Your task to perform on an android device: turn on sleep mode Image 0: 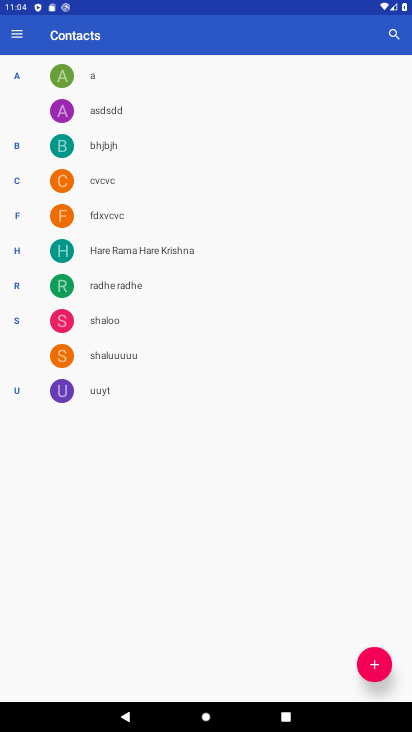
Step 0: press home button
Your task to perform on an android device: turn on sleep mode Image 1: 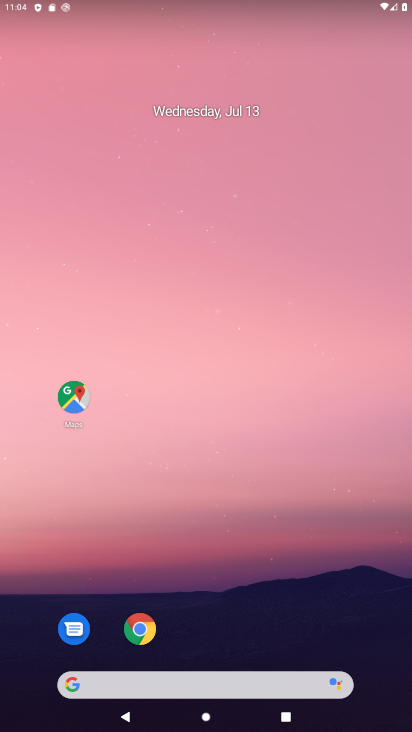
Step 1: drag from (225, 649) to (321, 123)
Your task to perform on an android device: turn on sleep mode Image 2: 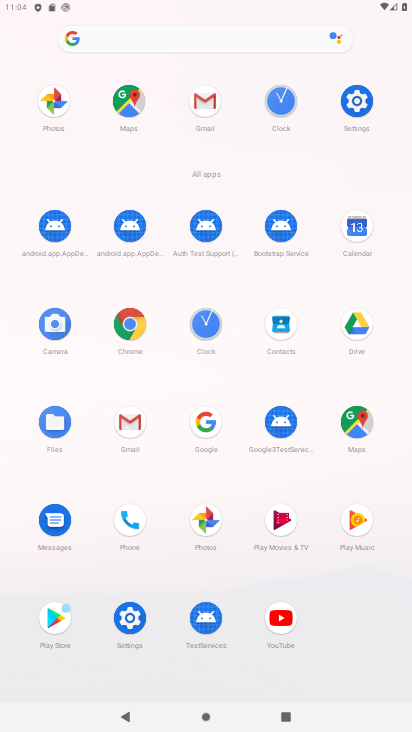
Step 2: click (122, 623)
Your task to perform on an android device: turn on sleep mode Image 3: 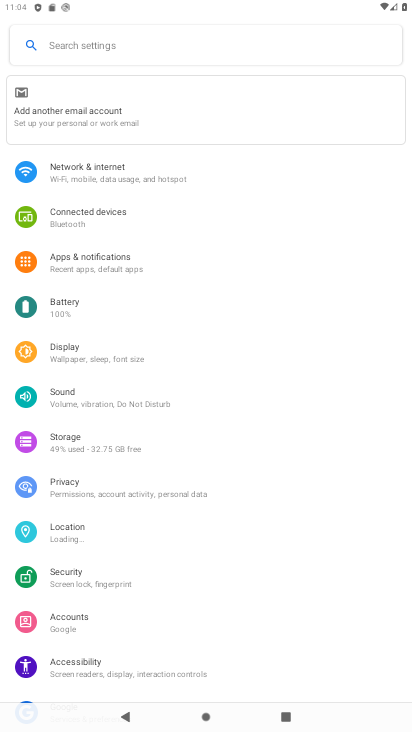
Step 3: click (85, 355)
Your task to perform on an android device: turn on sleep mode Image 4: 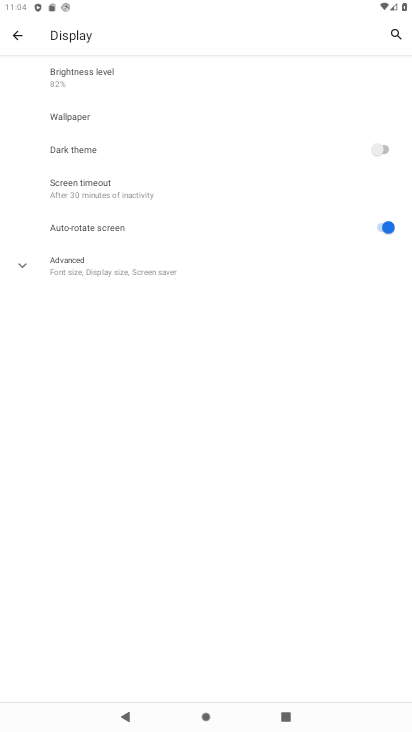
Step 4: click (135, 266)
Your task to perform on an android device: turn on sleep mode Image 5: 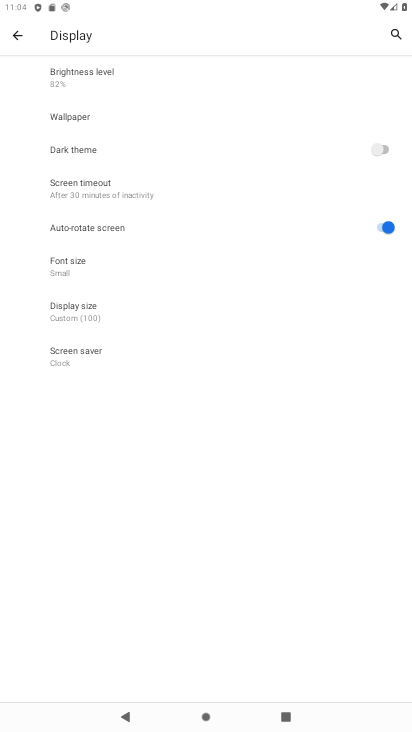
Step 5: task complete